Your task to perform on an android device: Show the shopping cart on amazon.com. Add "lenovo thinkpad" to the cart on amazon.com Image 0: 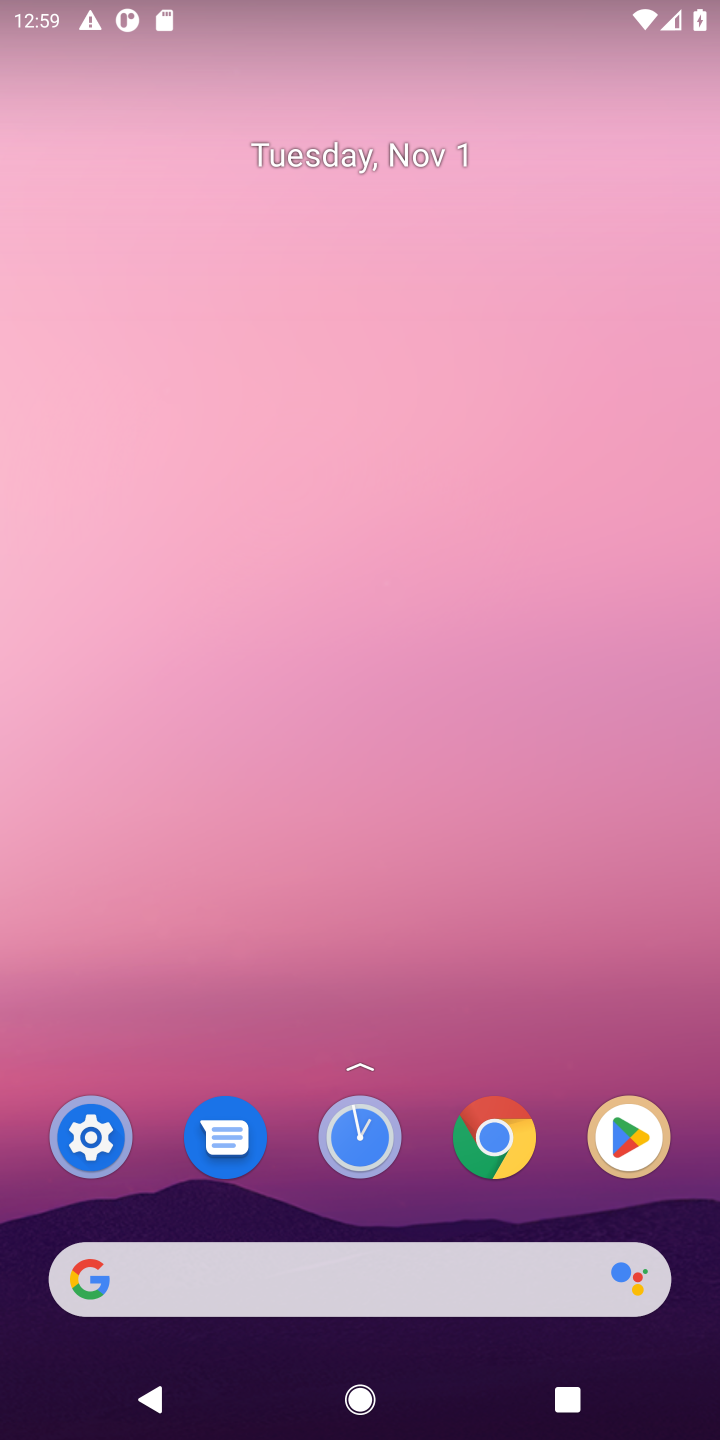
Step 0: drag from (306, 1248) to (387, 206)
Your task to perform on an android device: Show the shopping cart on amazon.com. Add "lenovo thinkpad" to the cart on amazon.com Image 1: 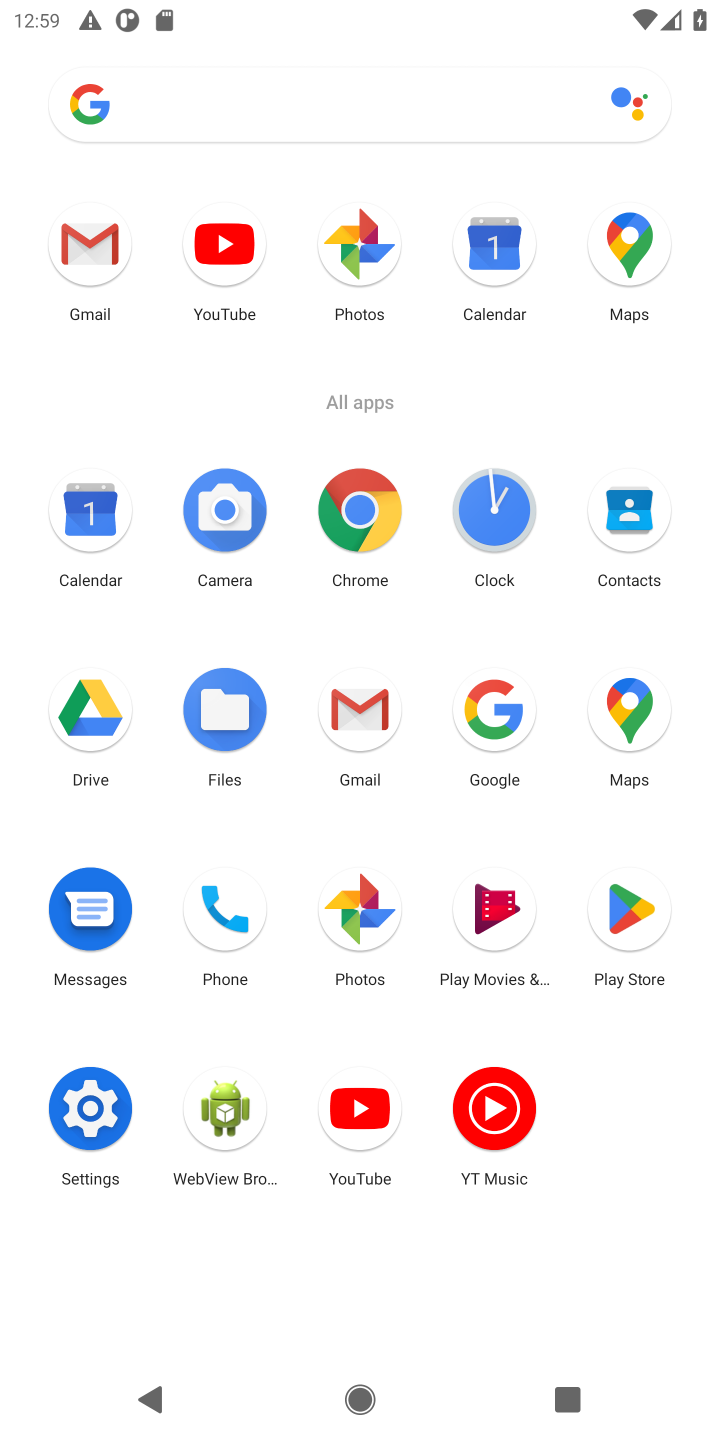
Step 1: click (384, 508)
Your task to perform on an android device: Show the shopping cart on amazon.com. Add "lenovo thinkpad" to the cart on amazon.com Image 2: 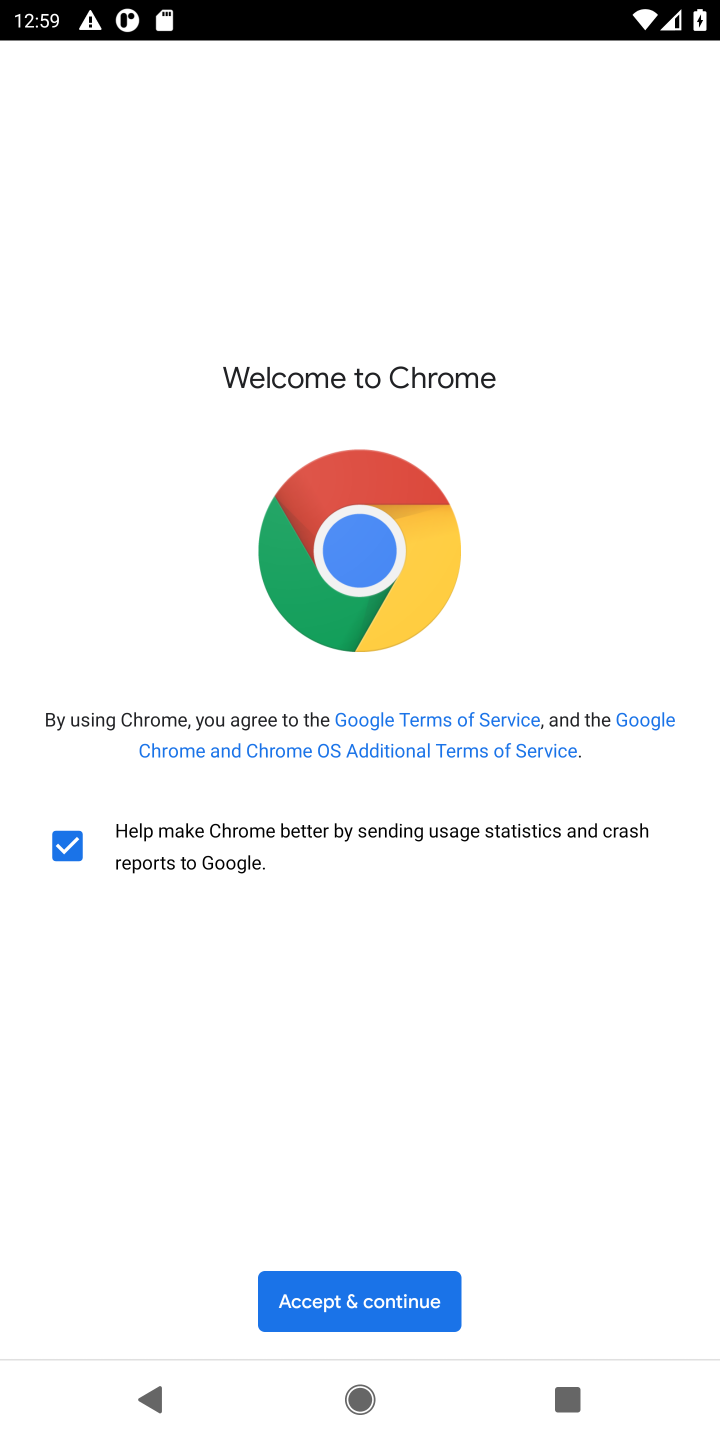
Step 2: click (366, 1292)
Your task to perform on an android device: Show the shopping cart on amazon.com. Add "lenovo thinkpad" to the cart on amazon.com Image 3: 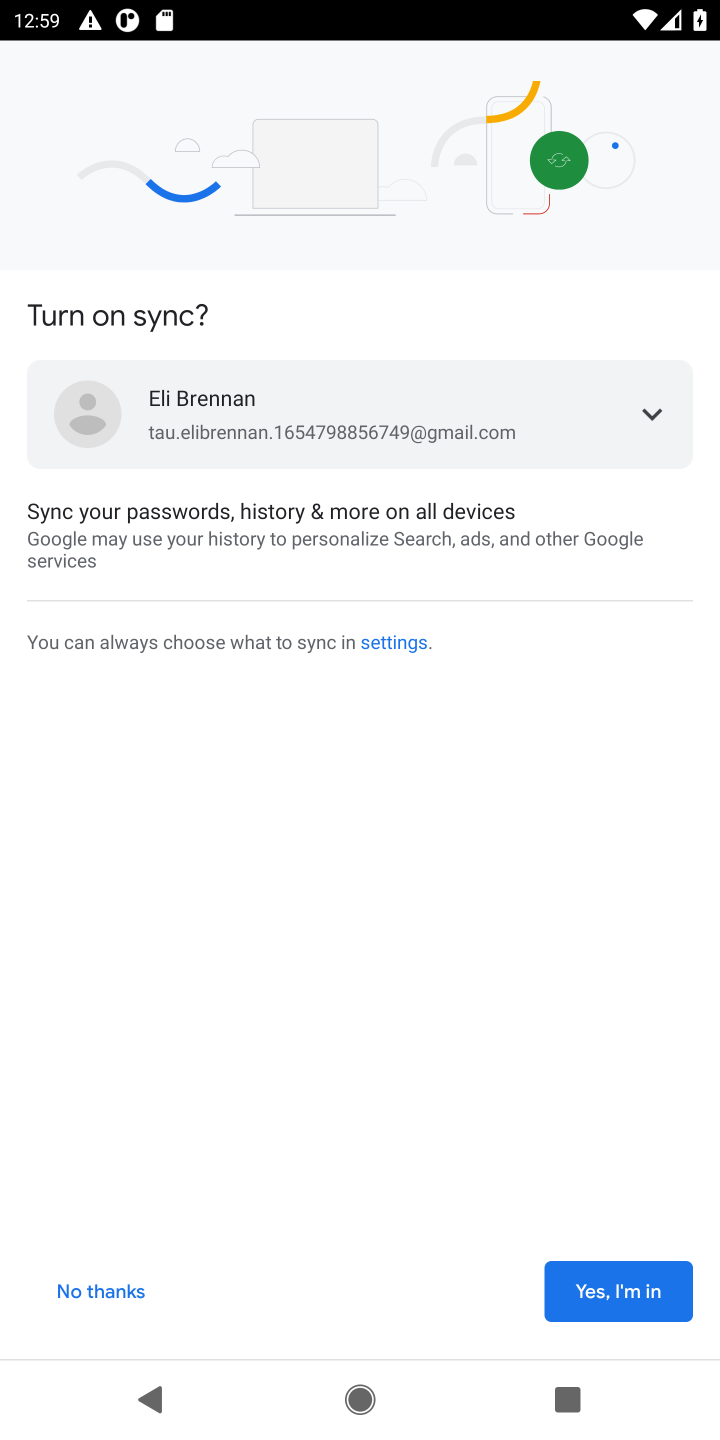
Step 3: click (613, 1293)
Your task to perform on an android device: Show the shopping cart on amazon.com. Add "lenovo thinkpad" to the cart on amazon.com Image 4: 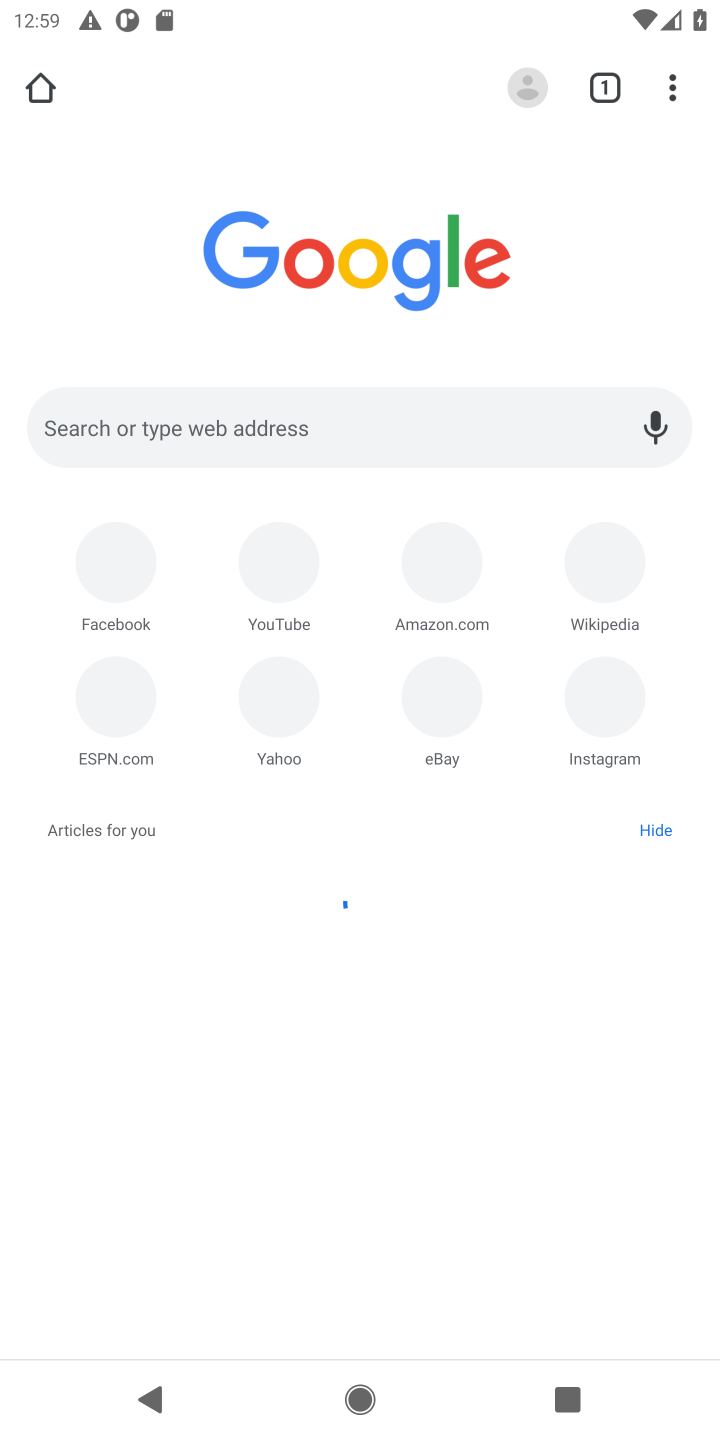
Step 4: click (338, 452)
Your task to perform on an android device: Show the shopping cart on amazon.com. Add "lenovo thinkpad" to the cart on amazon.com Image 5: 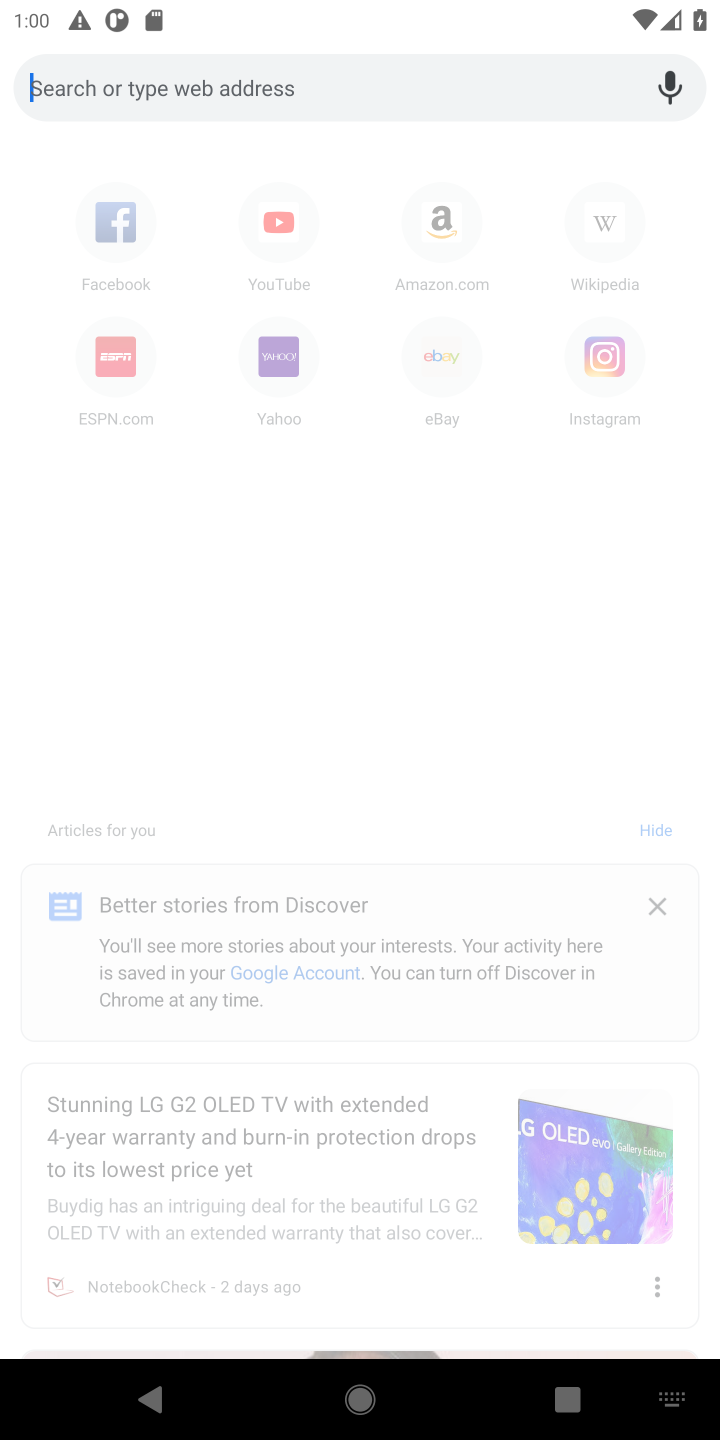
Step 5: type "amazon.com."
Your task to perform on an android device: Show the shopping cart on amazon.com. Add "lenovo thinkpad" to the cart on amazon.com Image 6: 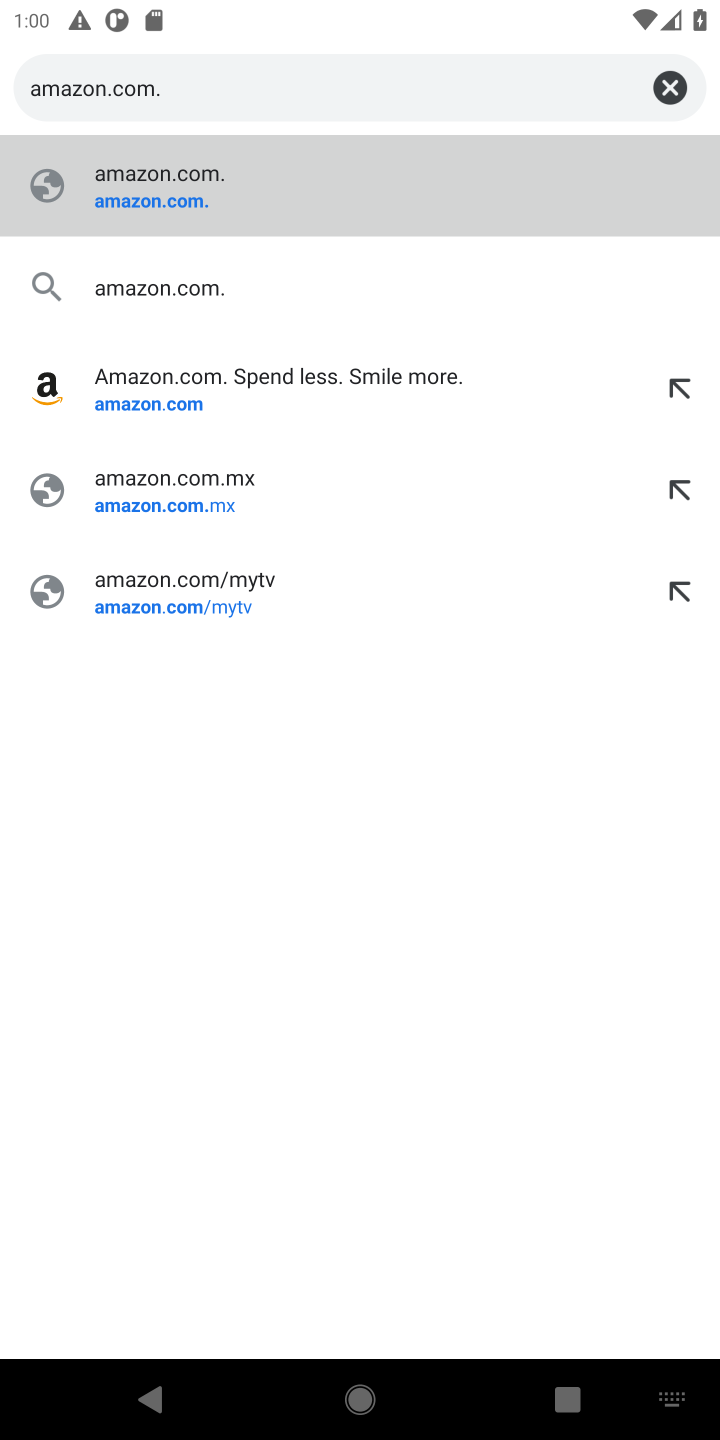
Step 6: press enter
Your task to perform on an android device: Show the shopping cart on amazon.com. Add "lenovo thinkpad" to the cart on amazon.com Image 7: 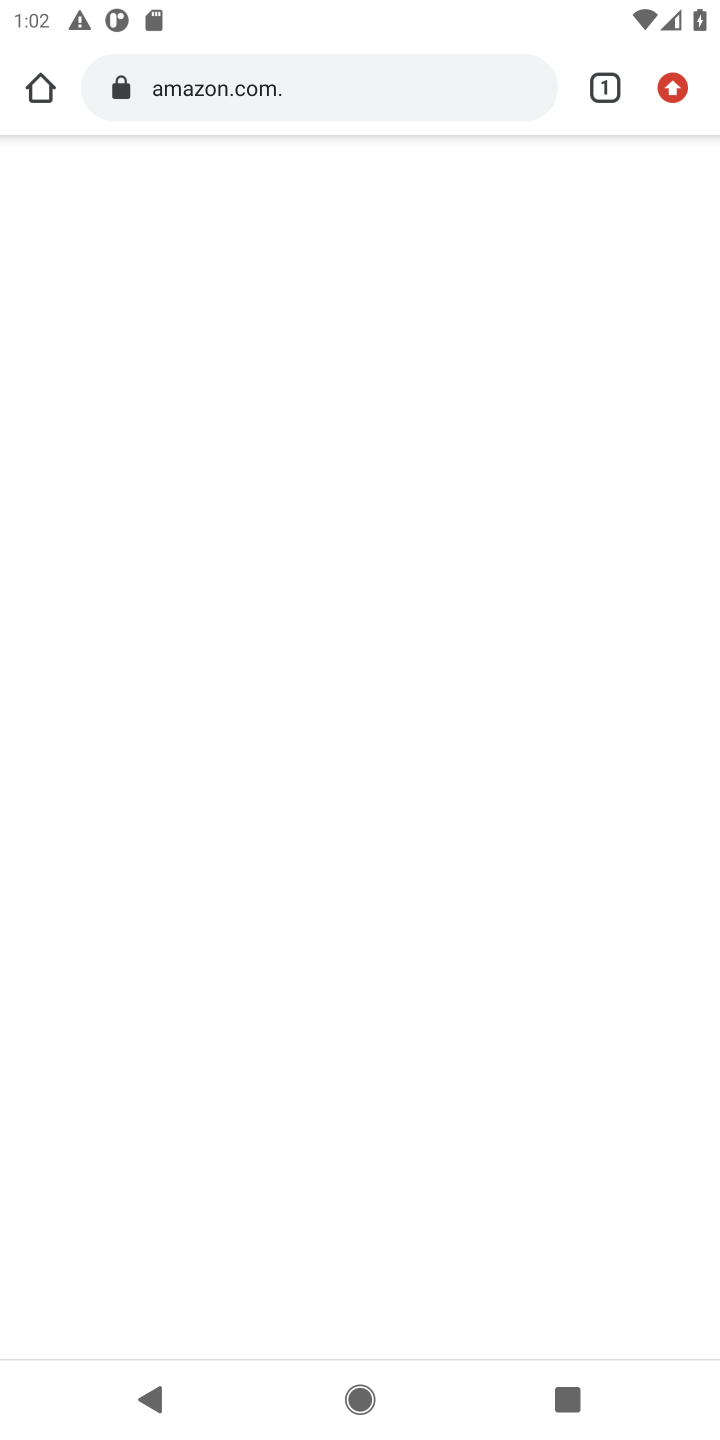
Step 7: task complete